Your task to perform on an android device: What is the recent news? Image 0: 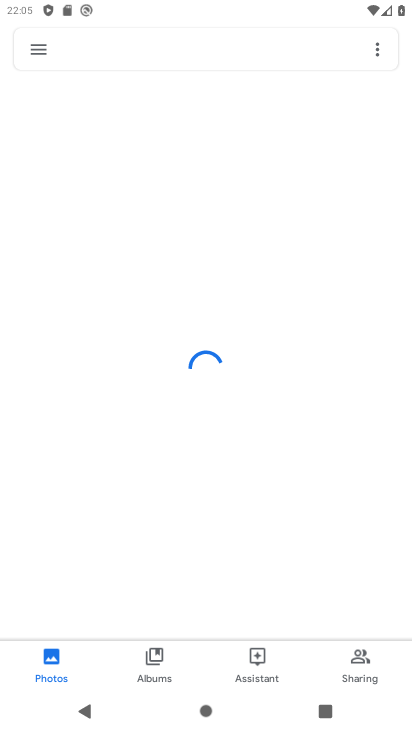
Step 0: press home button
Your task to perform on an android device: What is the recent news? Image 1: 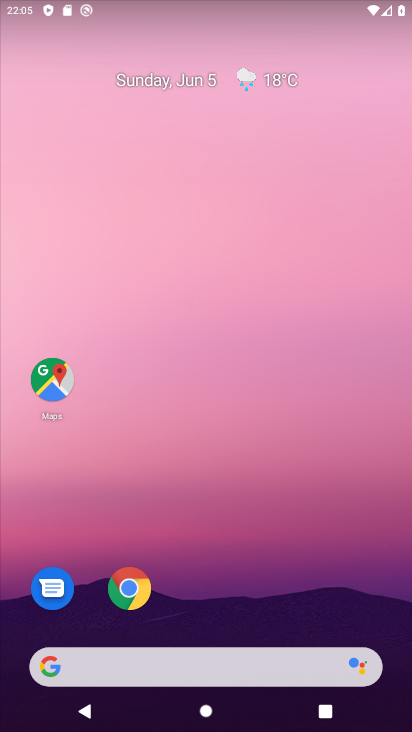
Step 1: task complete